Your task to perform on an android device: Open Google Maps Image 0: 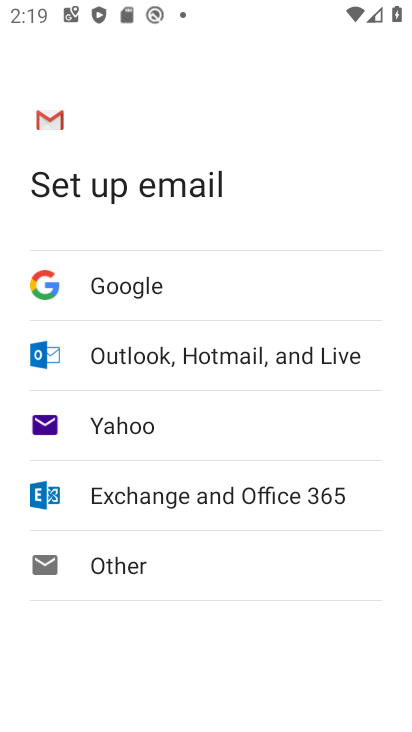
Step 0: press back button
Your task to perform on an android device: Open Google Maps Image 1: 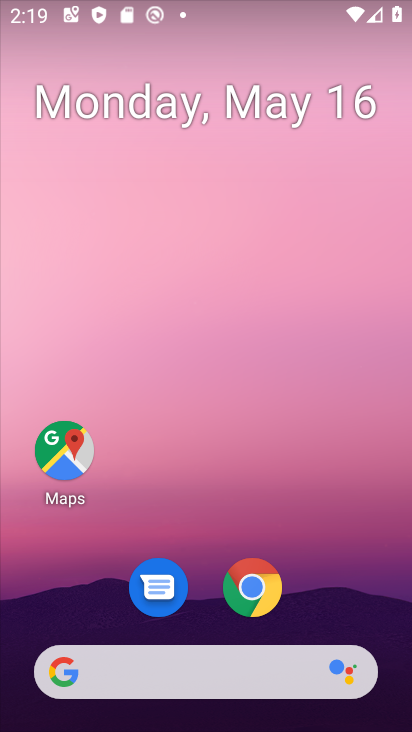
Step 1: drag from (354, 601) to (165, 336)
Your task to perform on an android device: Open Google Maps Image 2: 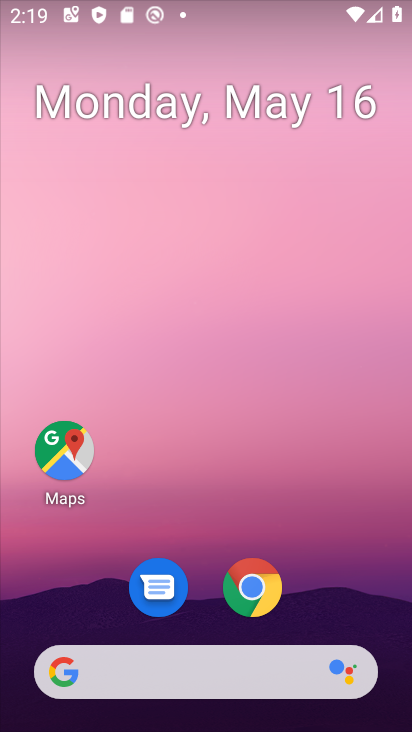
Step 2: drag from (290, 540) to (209, 297)
Your task to perform on an android device: Open Google Maps Image 3: 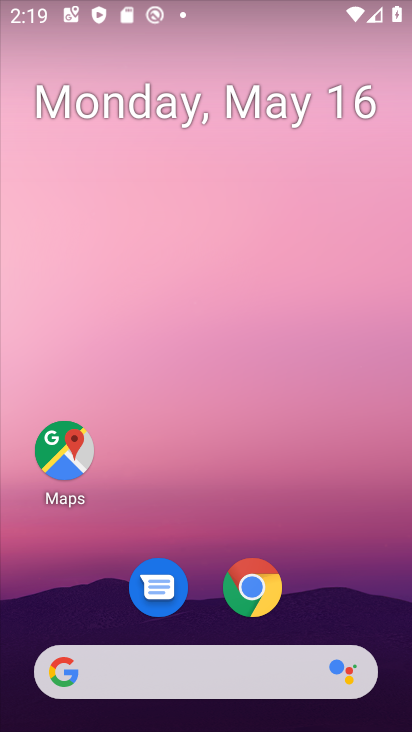
Step 3: drag from (363, 605) to (148, 183)
Your task to perform on an android device: Open Google Maps Image 4: 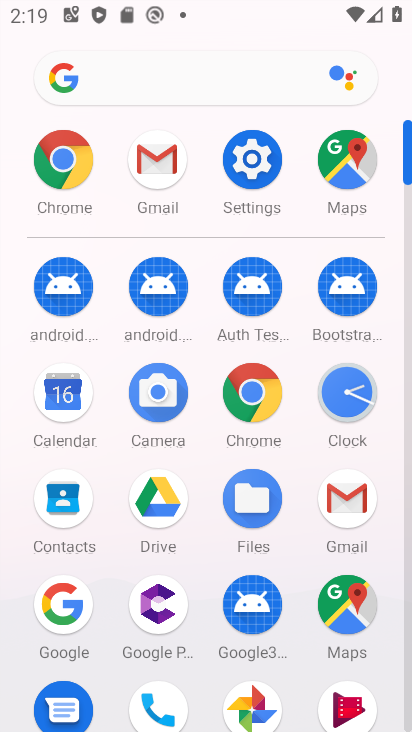
Step 4: click (353, 174)
Your task to perform on an android device: Open Google Maps Image 5: 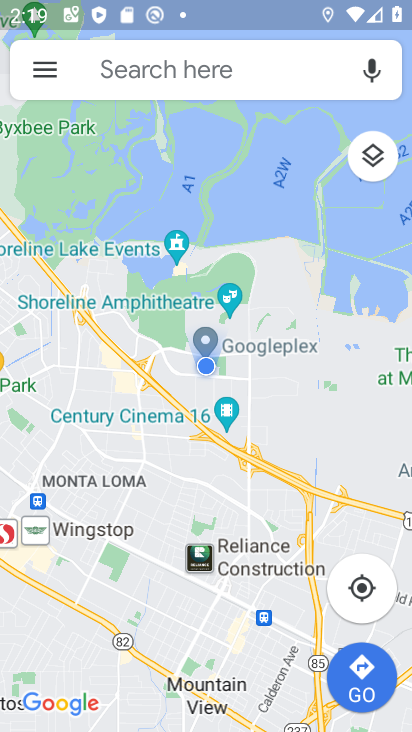
Step 5: click (78, 70)
Your task to perform on an android device: Open Google Maps Image 6: 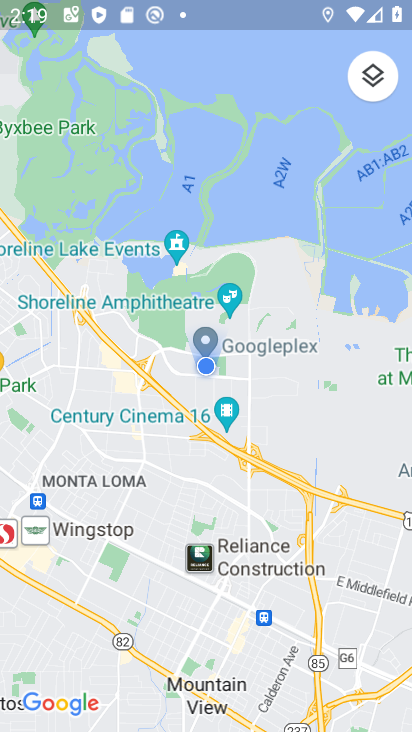
Step 6: task complete